Your task to perform on an android device: open app "WhatsApp Messenger" (install if not already installed) and go to login screen Image 0: 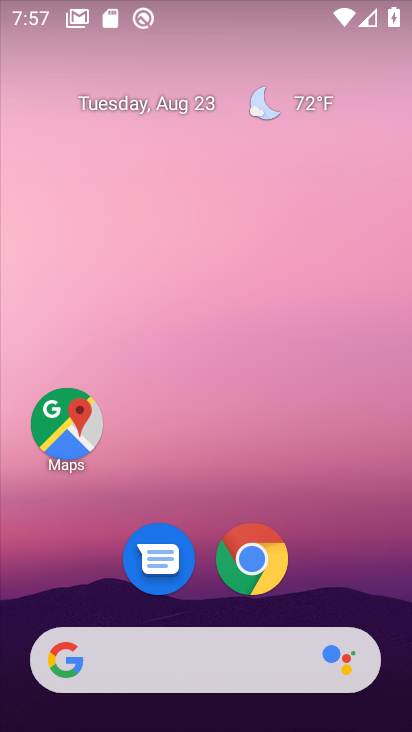
Step 0: drag from (210, 488) to (233, 94)
Your task to perform on an android device: open app "WhatsApp Messenger" (install if not already installed) and go to login screen Image 1: 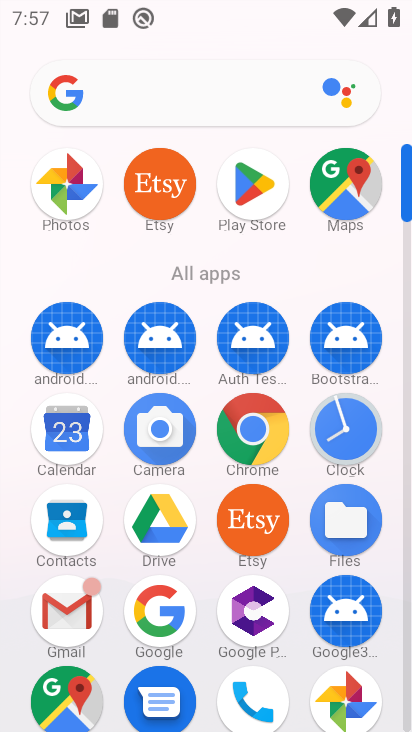
Step 1: click (255, 159)
Your task to perform on an android device: open app "WhatsApp Messenger" (install if not already installed) and go to login screen Image 2: 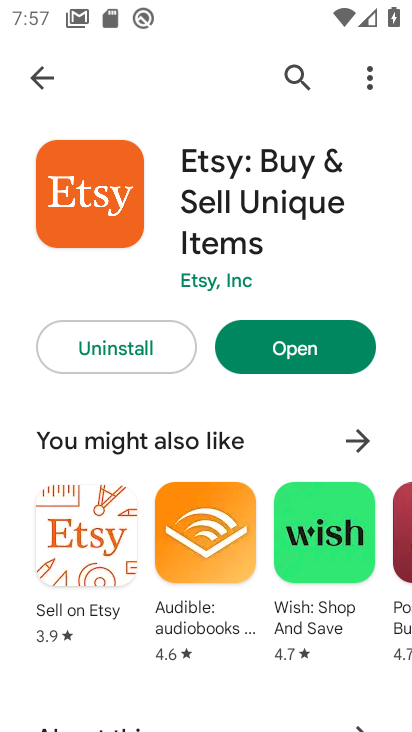
Step 2: click (291, 71)
Your task to perform on an android device: open app "WhatsApp Messenger" (install if not already installed) and go to login screen Image 3: 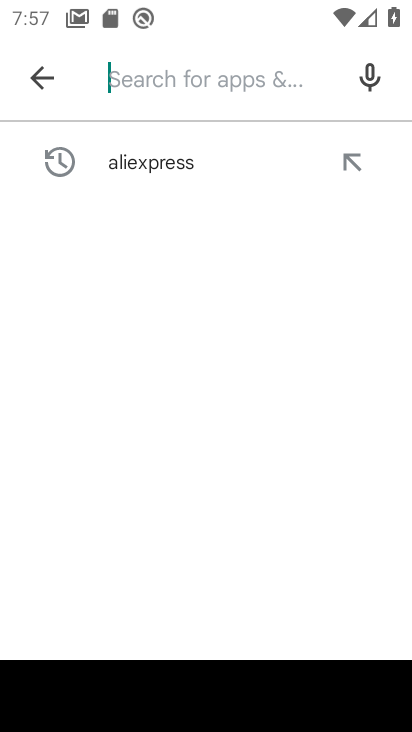
Step 3: type "WhatsApp Messenger"
Your task to perform on an android device: open app "WhatsApp Messenger" (install if not already installed) and go to login screen Image 4: 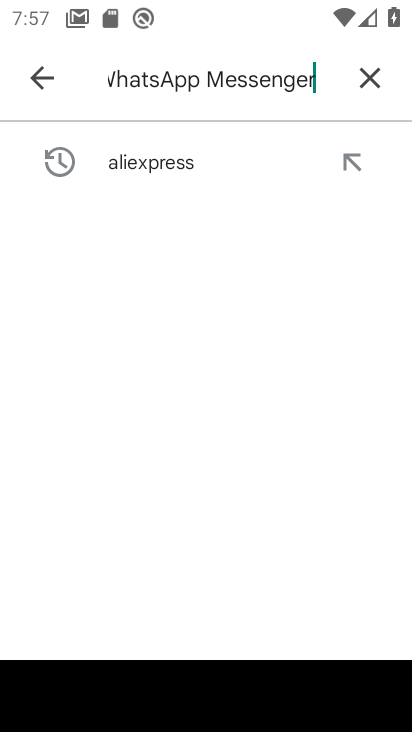
Step 4: type ""
Your task to perform on an android device: open app "WhatsApp Messenger" (install if not already installed) and go to login screen Image 5: 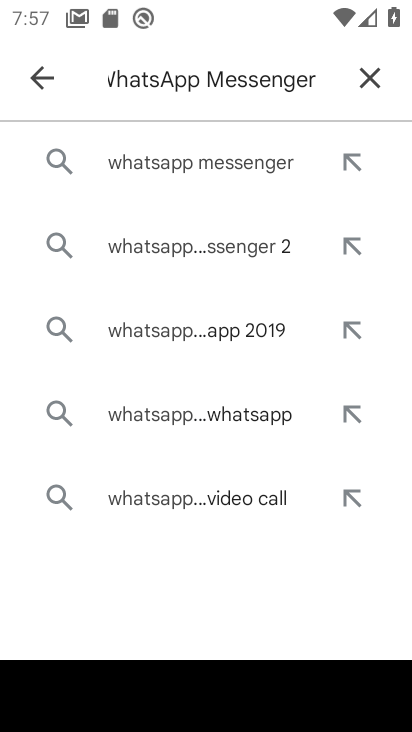
Step 5: click (170, 159)
Your task to perform on an android device: open app "WhatsApp Messenger" (install if not already installed) and go to login screen Image 6: 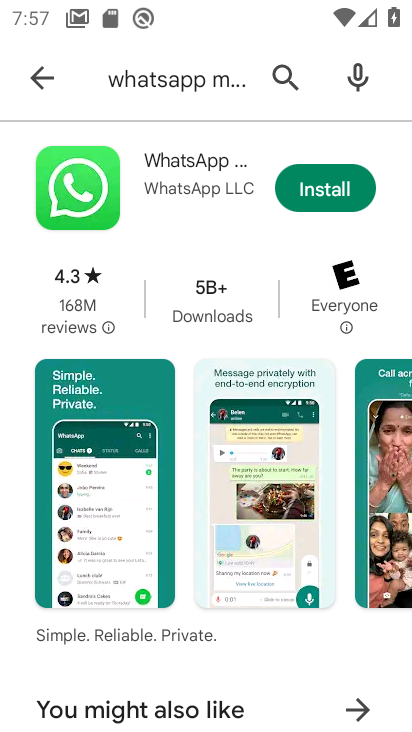
Step 6: click (292, 177)
Your task to perform on an android device: open app "WhatsApp Messenger" (install if not already installed) and go to login screen Image 7: 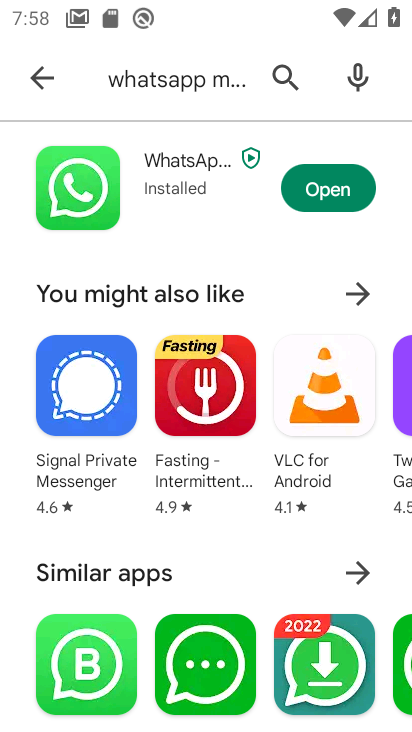
Step 7: click (325, 192)
Your task to perform on an android device: open app "WhatsApp Messenger" (install if not already installed) and go to login screen Image 8: 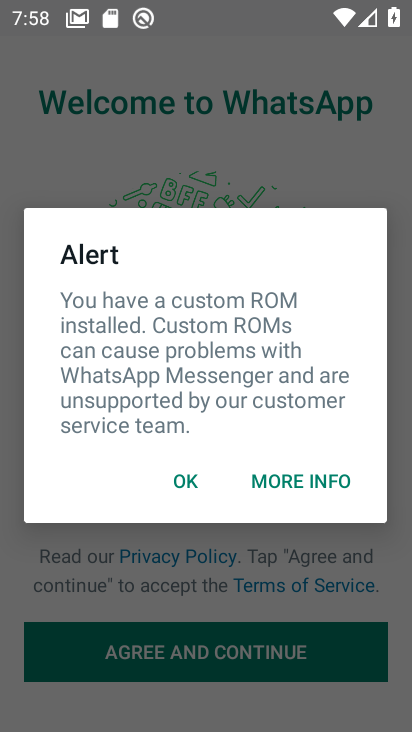
Step 8: click (195, 469)
Your task to perform on an android device: open app "WhatsApp Messenger" (install if not already installed) and go to login screen Image 9: 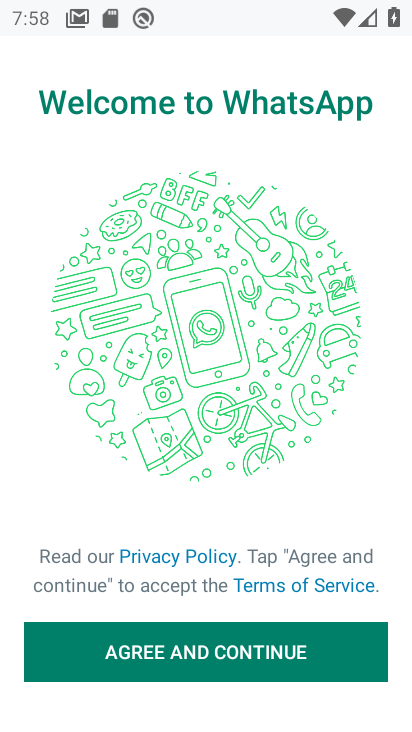
Step 9: task complete